Your task to perform on an android device: refresh tabs in the chrome app Image 0: 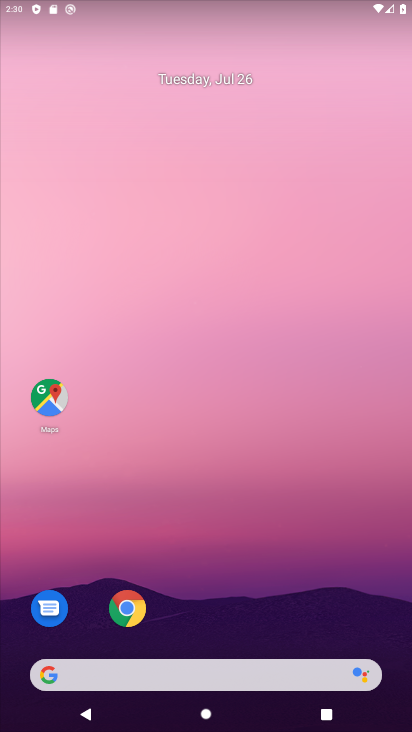
Step 0: click (131, 611)
Your task to perform on an android device: refresh tabs in the chrome app Image 1: 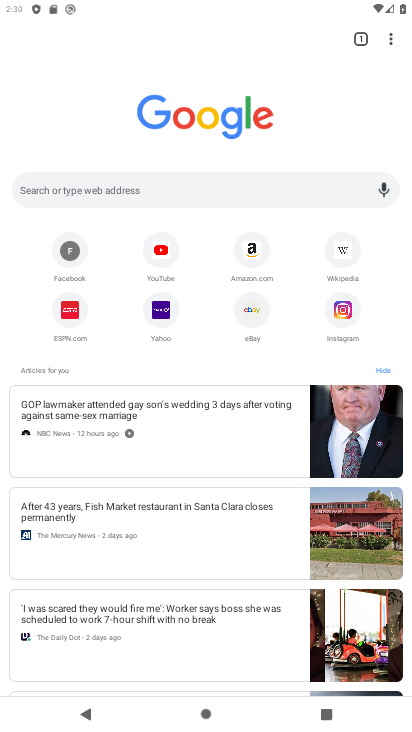
Step 1: click (393, 42)
Your task to perform on an android device: refresh tabs in the chrome app Image 2: 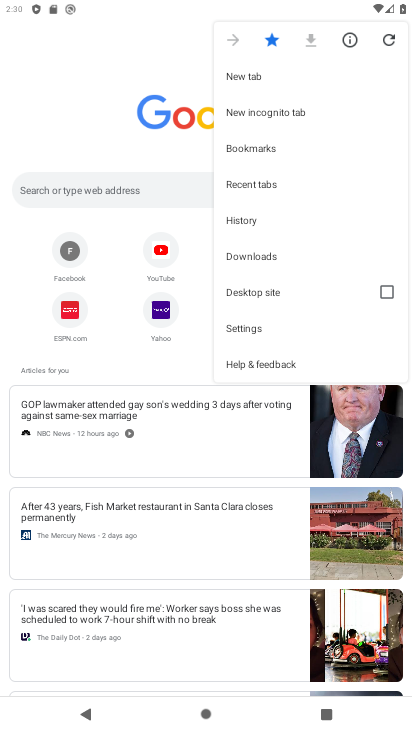
Step 2: click (387, 37)
Your task to perform on an android device: refresh tabs in the chrome app Image 3: 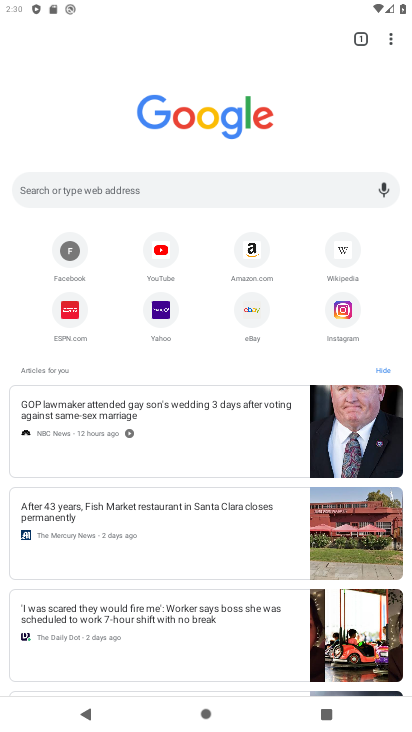
Step 3: task complete